Your task to perform on an android device: Open Youtube and go to "Your channel" Image 0: 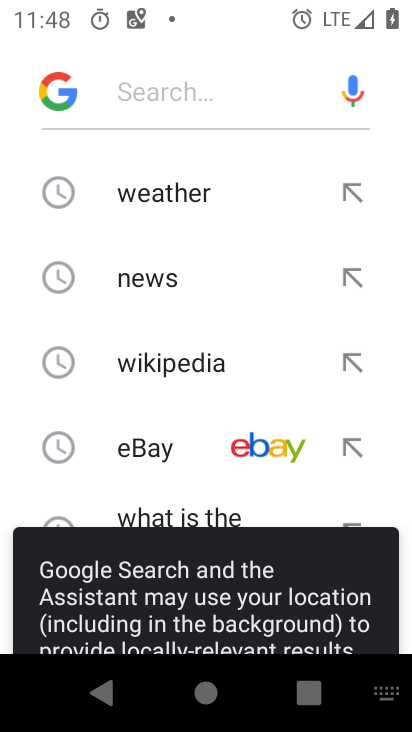
Step 0: press back button
Your task to perform on an android device: Open Youtube and go to "Your channel" Image 1: 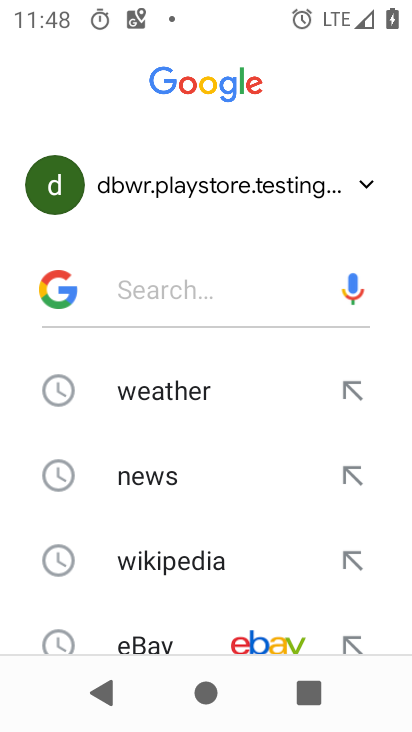
Step 1: press back button
Your task to perform on an android device: Open Youtube and go to "Your channel" Image 2: 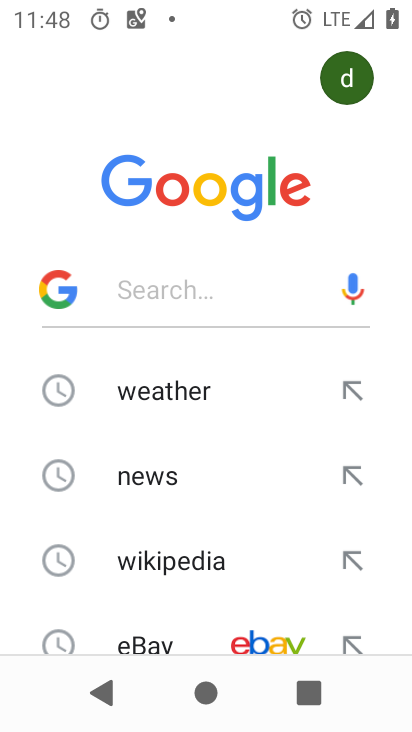
Step 2: press home button
Your task to perform on an android device: Open Youtube and go to "Your channel" Image 3: 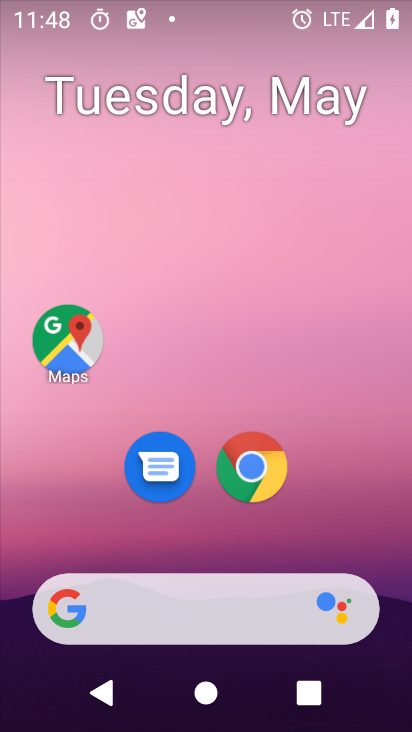
Step 3: drag from (366, 554) to (225, 56)
Your task to perform on an android device: Open Youtube and go to "Your channel" Image 4: 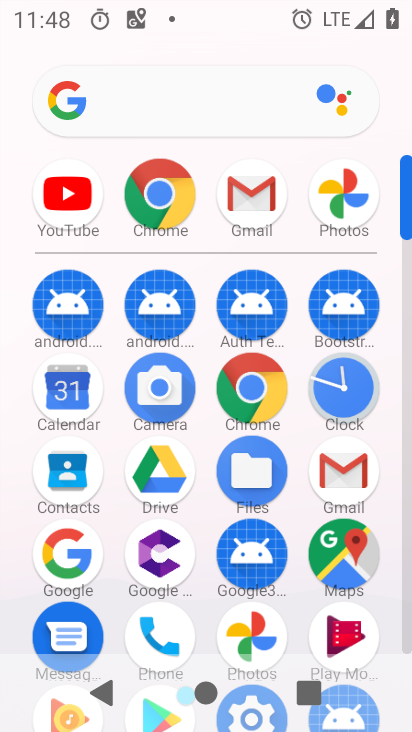
Step 4: drag from (5, 560) to (7, 183)
Your task to perform on an android device: Open Youtube and go to "Your channel" Image 5: 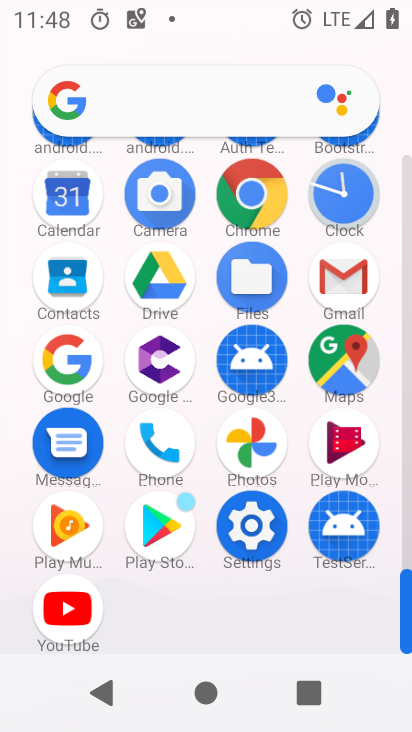
Step 5: click (64, 608)
Your task to perform on an android device: Open Youtube and go to "Your channel" Image 6: 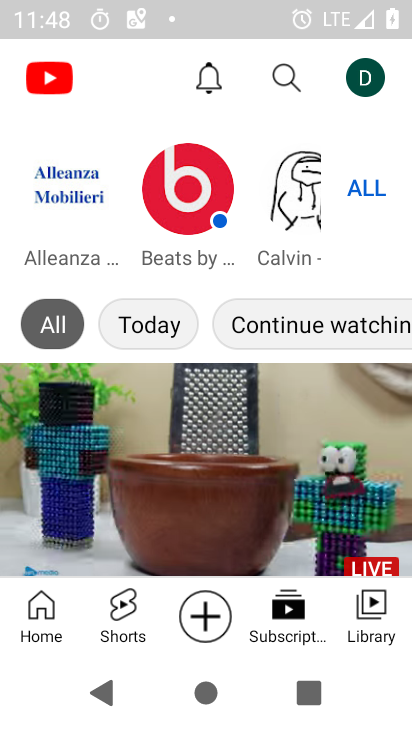
Step 6: click (374, 633)
Your task to perform on an android device: Open Youtube and go to "Your channel" Image 7: 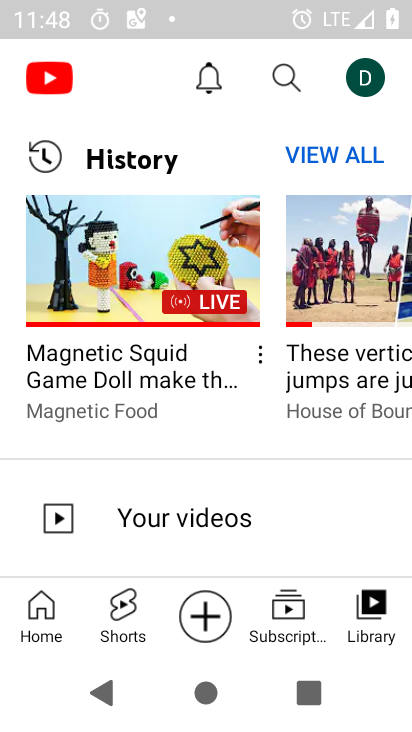
Step 7: click (382, 616)
Your task to perform on an android device: Open Youtube and go to "Your channel" Image 8: 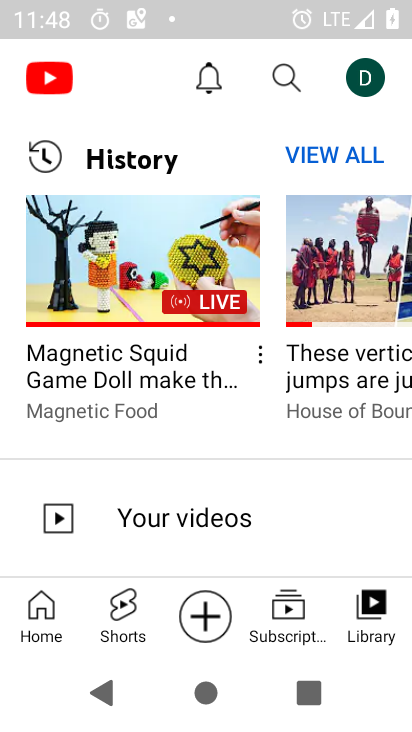
Step 8: drag from (227, 529) to (227, 313)
Your task to perform on an android device: Open Youtube and go to "Your channel" Image 9: 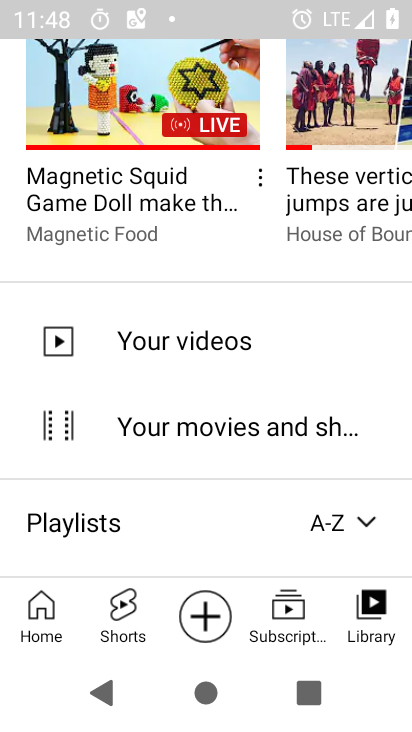
Step 9: click (189, 328)
Your task to perform on an android device: Open Youtube and go to "Your channel" Image 10: 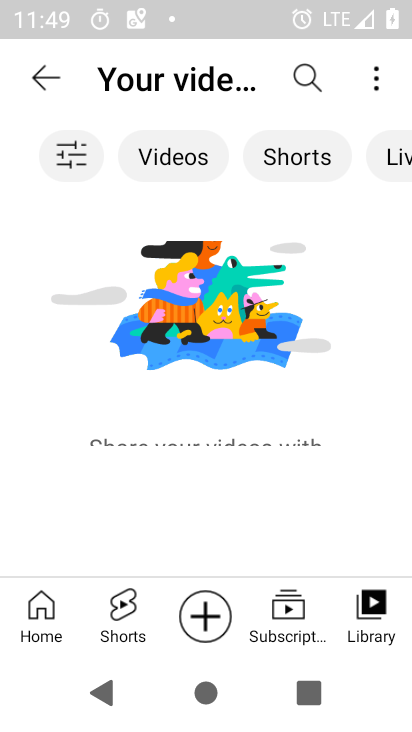
Step 10: task complete